Your task to perform on an android device: Go to calendar. Show me events next week Image 0: 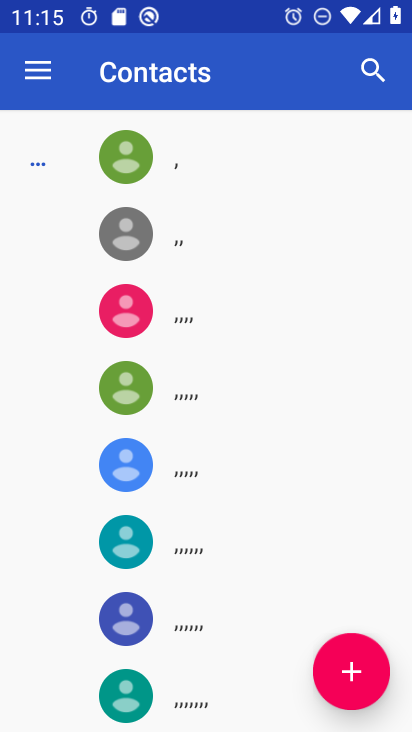
Step 0: press home button
Your task to perform on an android device: Go to calendar. Show me events next week Image 1: 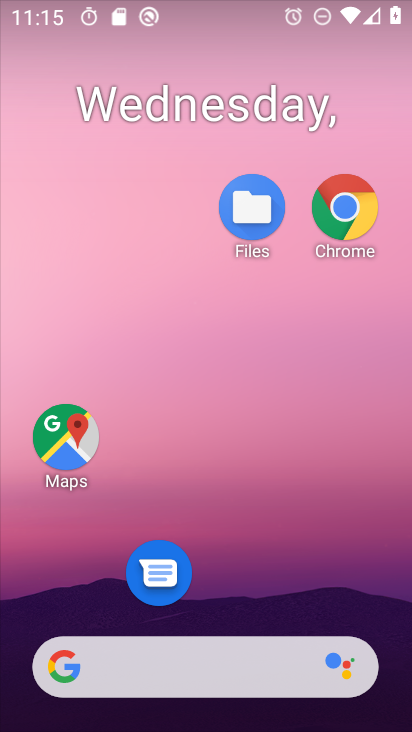
Step 1: drag from (213, 666) to (274, 295)
Your task to perform on an android device: Go to calendar. Show me events next week Image 2: 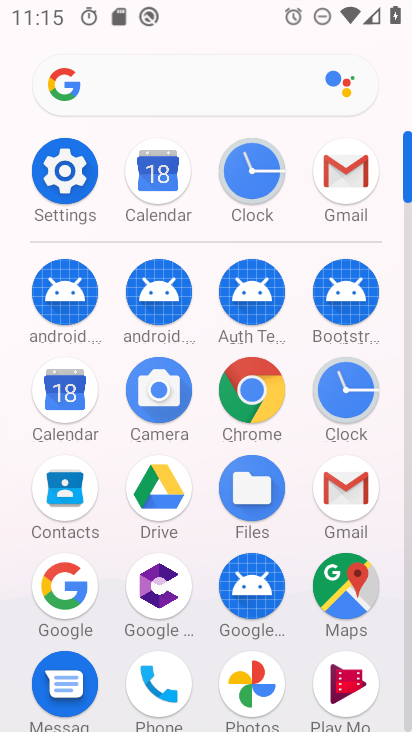
Step 2: click (61, 415)
Your task to perform on an android device: Go to calendar. Show me events next week Image 3: 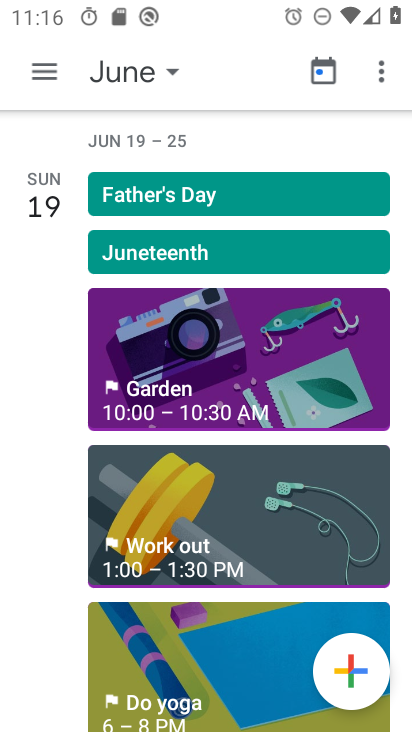
Step 3: click (159, 81)
Your task to perform on an android device: Go to calendar. Show me events next week Image 4: 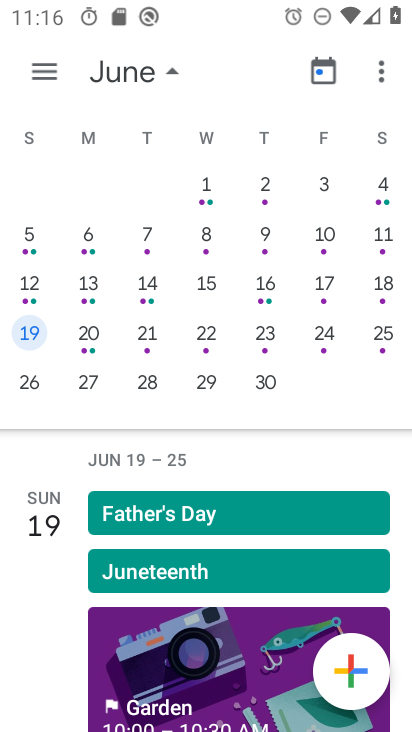
Step 4: drag from (47, 301) to (411, 317)
Your task to perform on an android device: Go to calendar. Show me events next week Image 5: 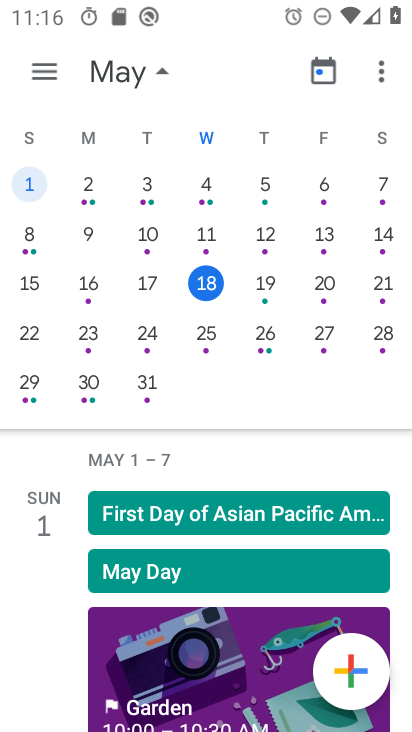
Step 5: click (35, 338)
Your task to perform on an android device: Go to calendar. Show me events next week Image 6: 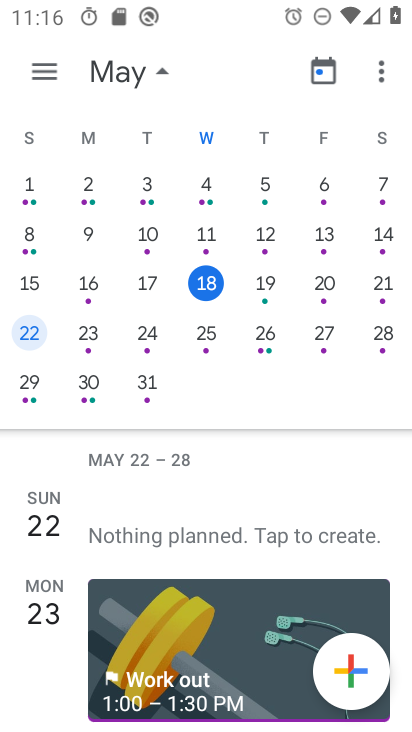
Step 6: task complete